Your task to perform on an android device: make emails show in primary in the gmail app Image 0: 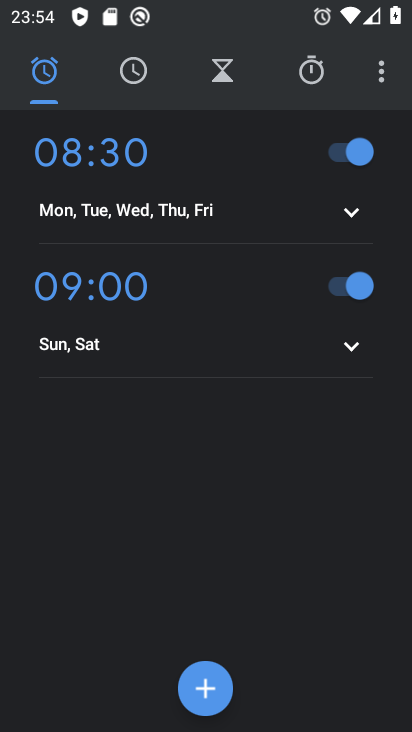
Step 0: press home button
Your task to perform on an android device: make emails show in primary in the gmail app Image 1: 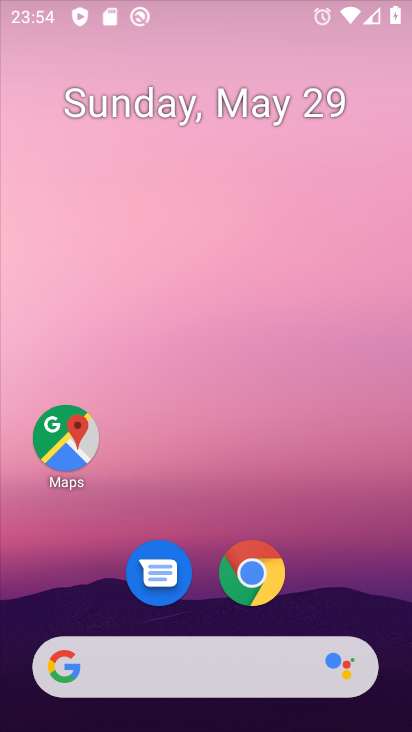
Step 1: drag from (353, 508) to (219, 0)
Your task to perform on an android device: make emails show in primary in the gmail app Image 2: 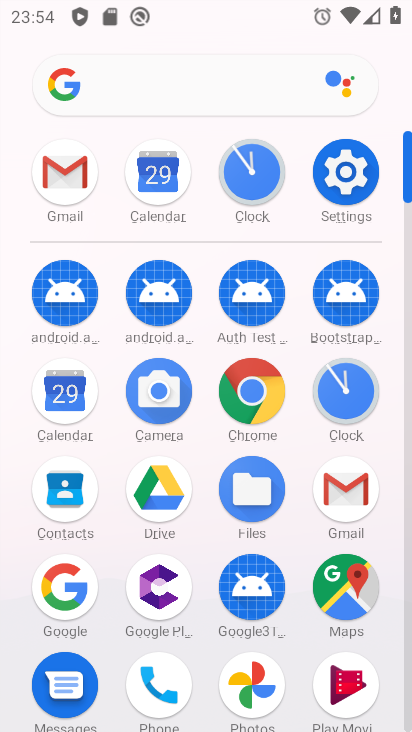
Step 2: click (80, 199)
Your task to perform on an android device: make emails show in primary in the gmail app Image 3: 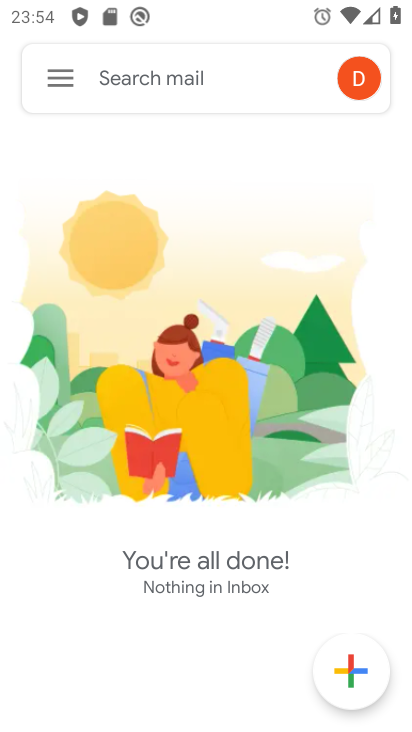
Step 3: click (54, 80)
Your task to perform on an android device: make emails show in primary in the gmail app Image 4: 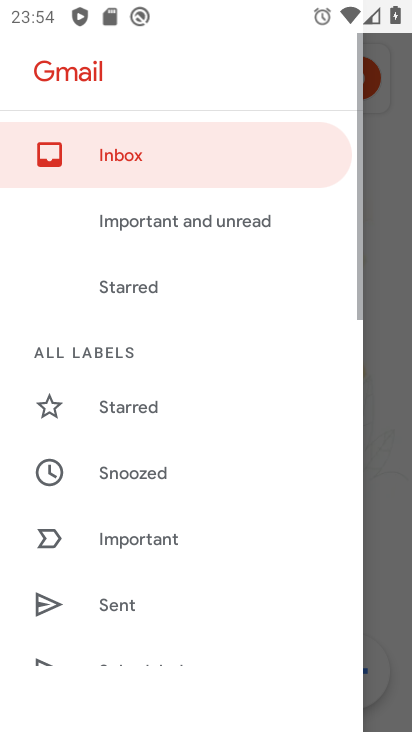
Step 4: task complete